Your task to perform on an android device: Is it going to rain tomorrow? Image 0: 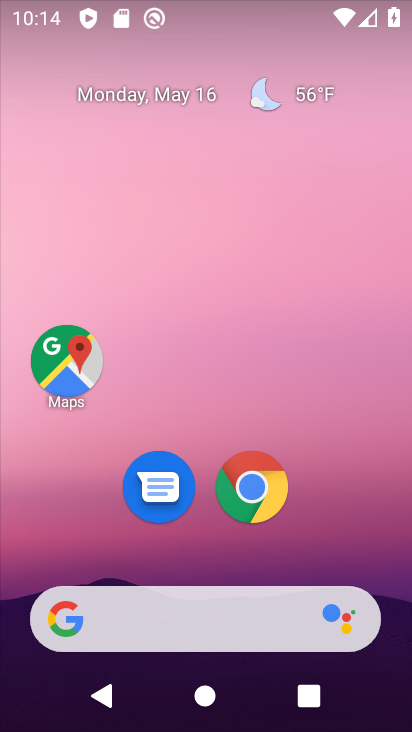
Step 0: drag from (336, 424) to (366, 83)
Your task to perform on an android device: Is it going to rain tomorrow? Image 1: 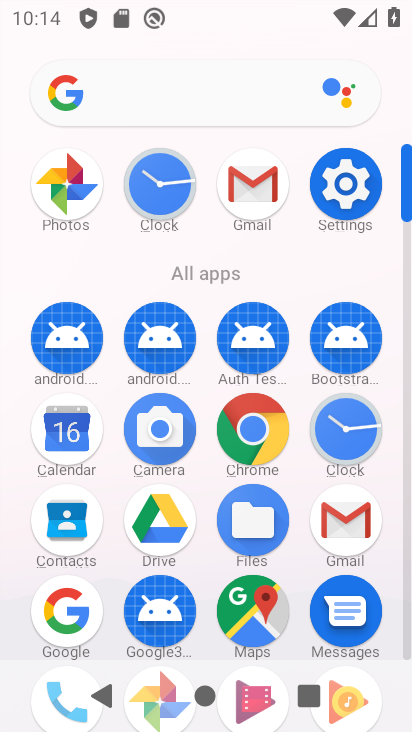
Step 1: click (69, 613)
Your task to perform on an android device: Is it going to rain tomorrow? Image 2: 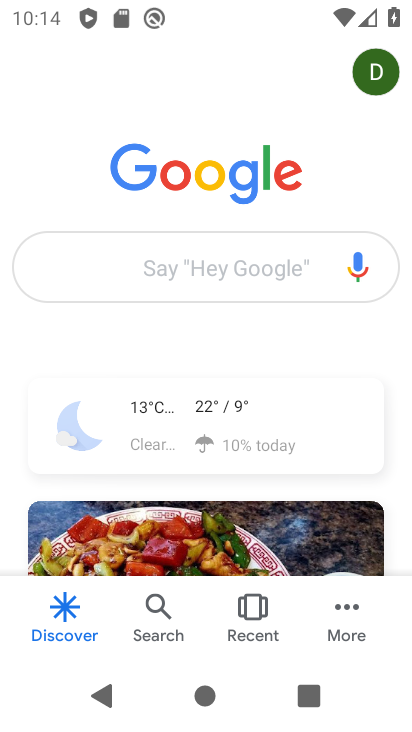
Step 2: click (209, 255)
Your task to perform on an android device: Is it going to rain tomorrow? Image 3: 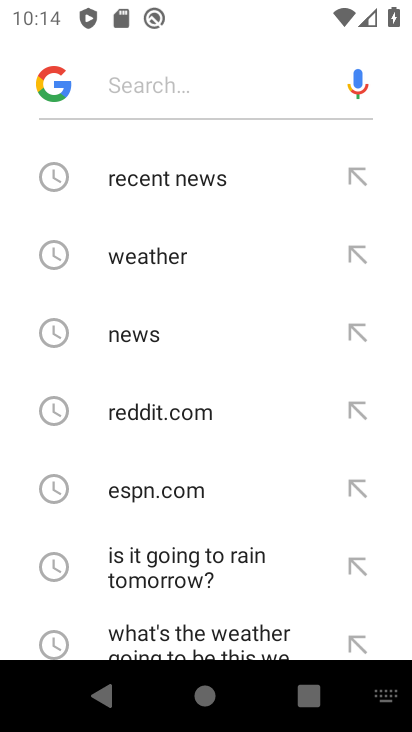
Step 3: click (188, 575)
Your task to perform on an android device: Is it going to rain tomorrow? Image 4: 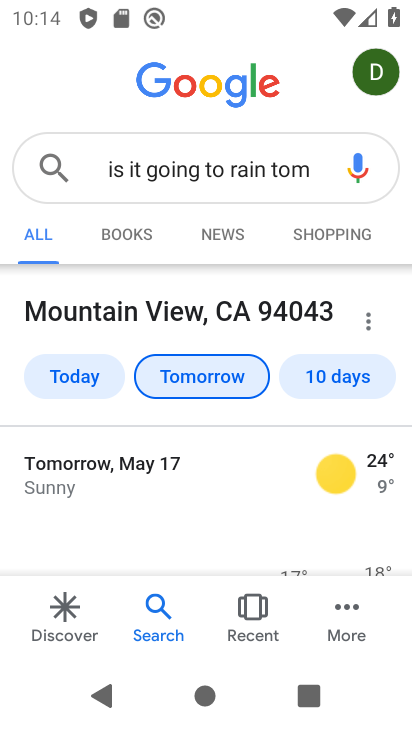
Step 4: drag from (211, 552) to (212, 385)
Your task to perform on an android device: Is it going to rain tomorrow? Image 5: 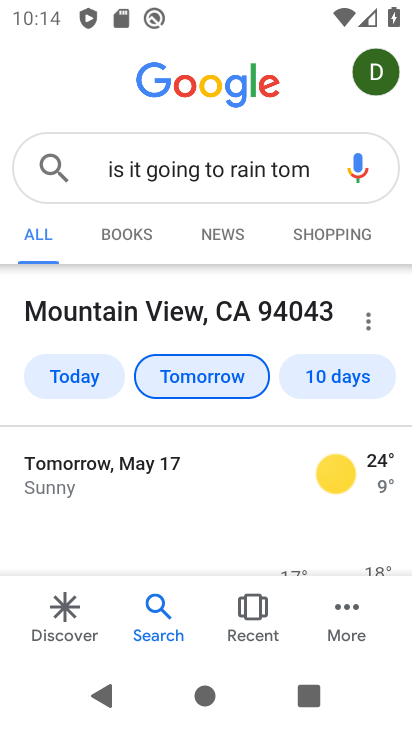
Step 5: click (326, 315)
Your task to perform on an android device: Is it going to rain tomorrow? Image 6: 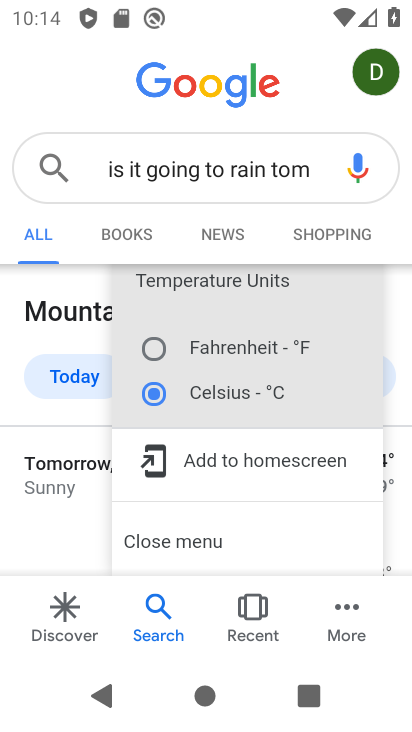
Step 6: task complete